Your task to perform on an android device: Open the calendar and show me this week's events? Image 0: 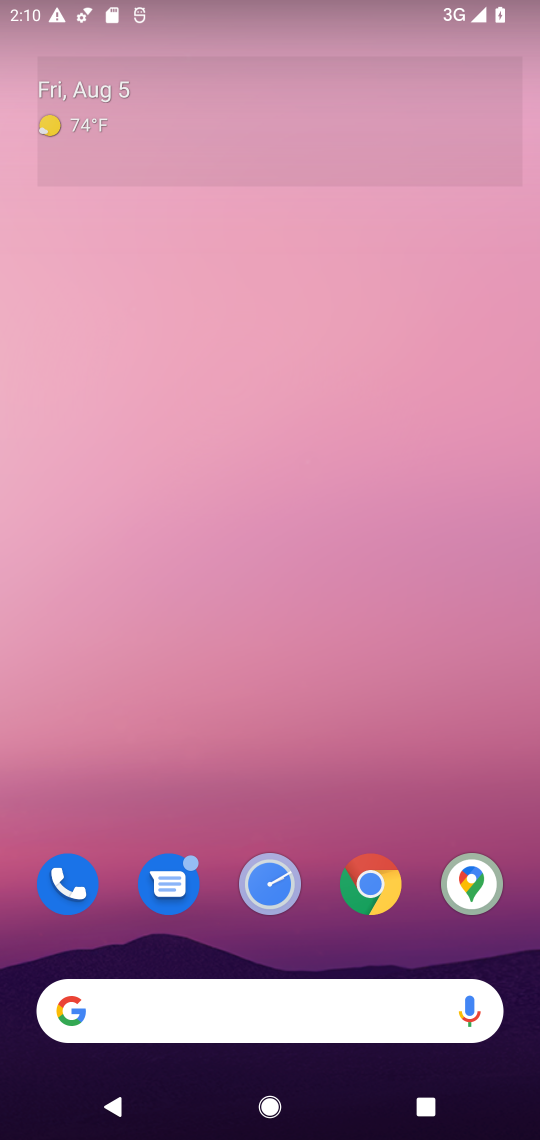
Step 0: drag from (415, 809) to (312, 13)
Your task to perform on an android device: Open the calendar and show me this week's events? Image 1: 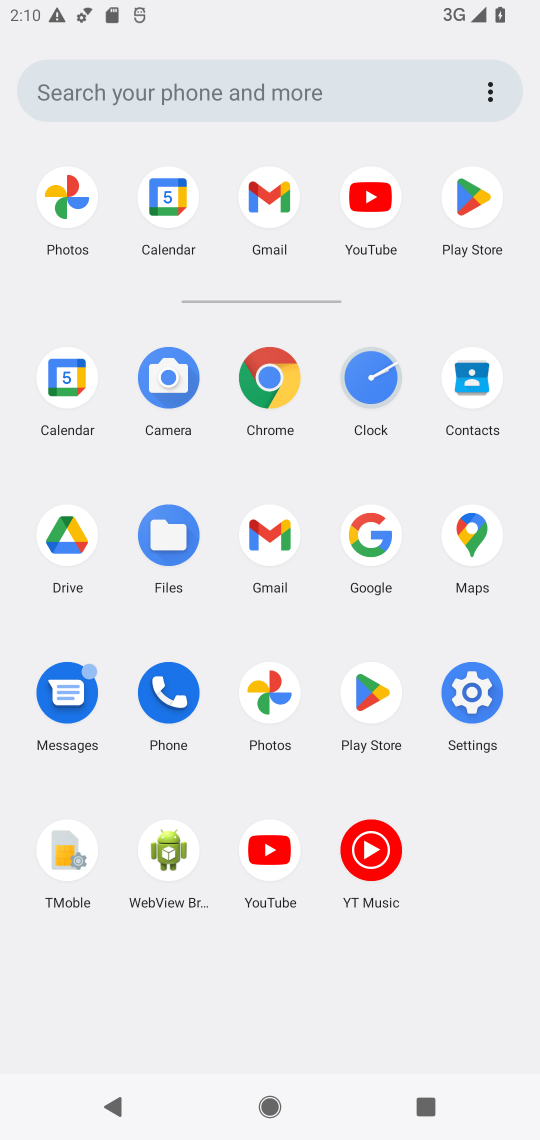
Step 1: click (67, 378)
Your task to perform on an android device: Open the calendar and show me this week's events? Image 2: 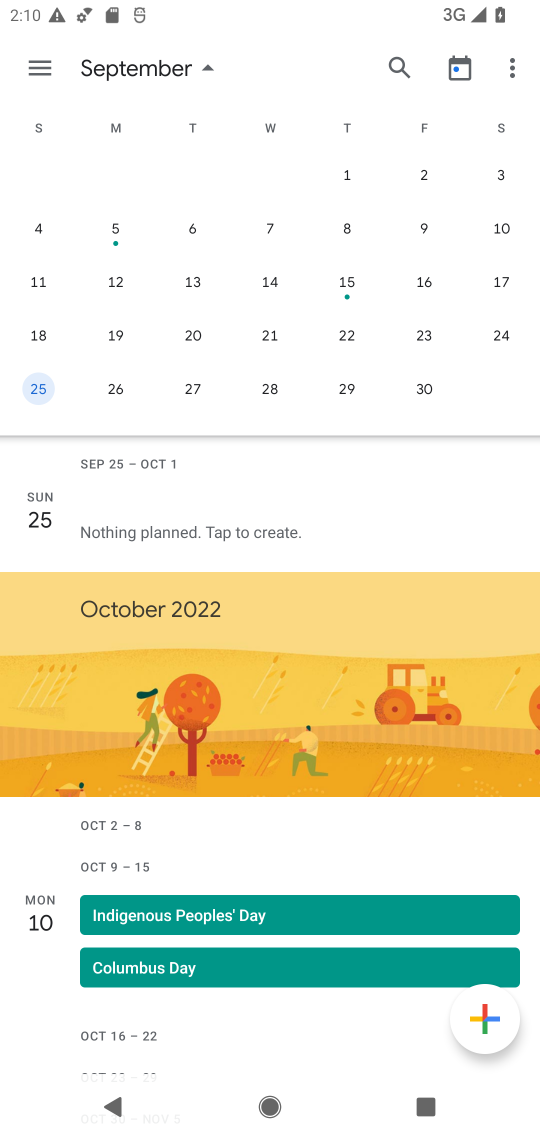
Step 2: task complete